Your task to perform on an android device: What's the weather today? Image 0: 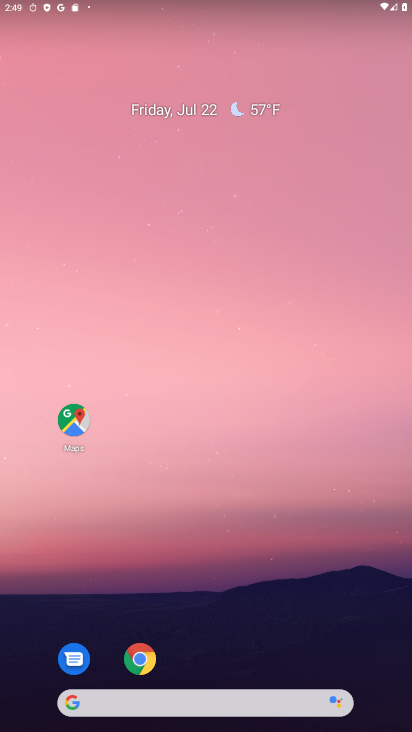
Step 0: click (184, 705)
Your task to perform on an android device: What's the weather today? Image 1: 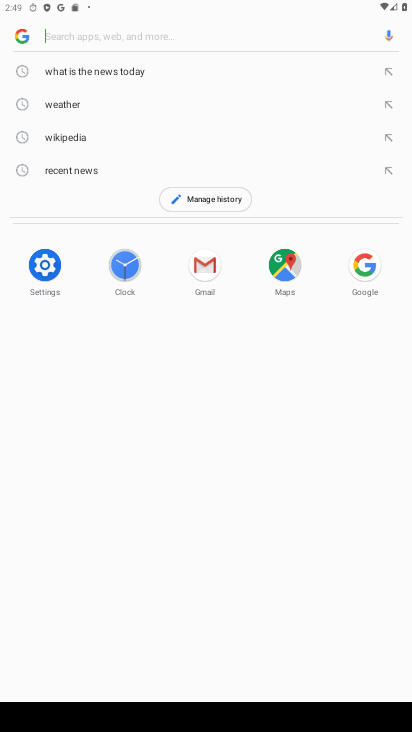
Step 1: type "what's the weather today"
Your task to perform on an android device: What's the weather today? Image 2: 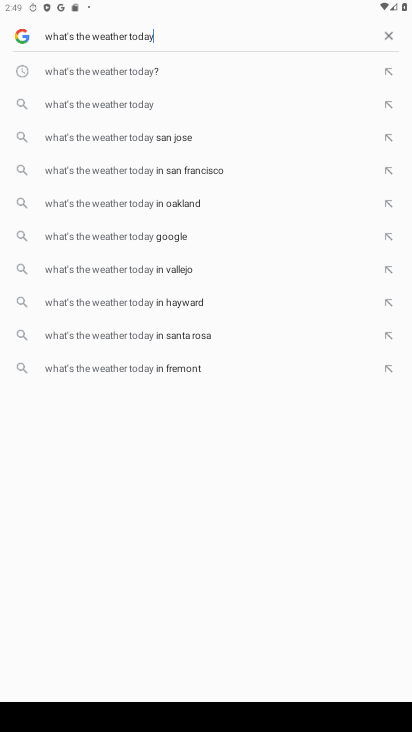
Step 2: click (166, 75)
Your task to perform on an android device: What's the weather today? Image 3: 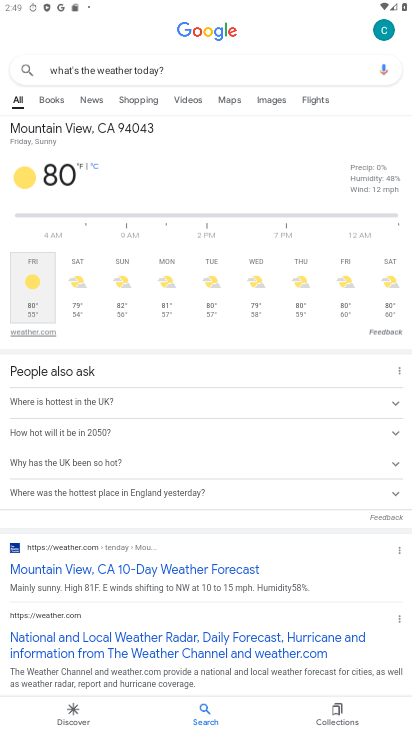
Step 3: task complete